Your task to perform on an android device: delete a single message in the gmail app Image 0: 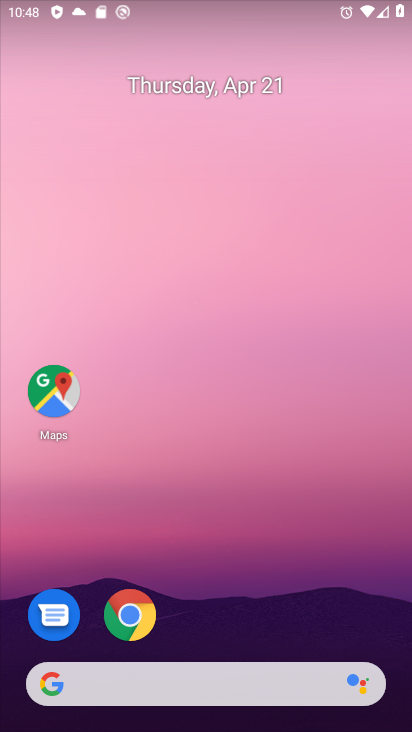
Step 0: drag from (213, 621) to (264, 186)
Your task to perform on an android device: delete a single message in the gmail app Image 1: 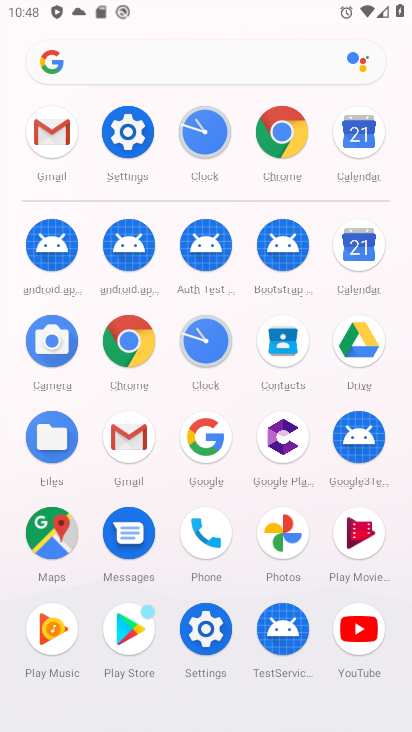
Step 1: click (122, 430)
Your task to perform on an android device: delete a single message in the gmail app Image 2: 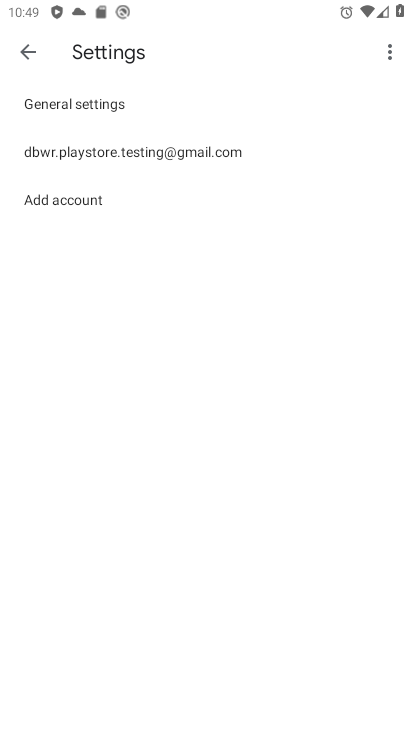
Step 2: press back button
Your task to perform on an android device: delete a single message in the gmail app Image 3: 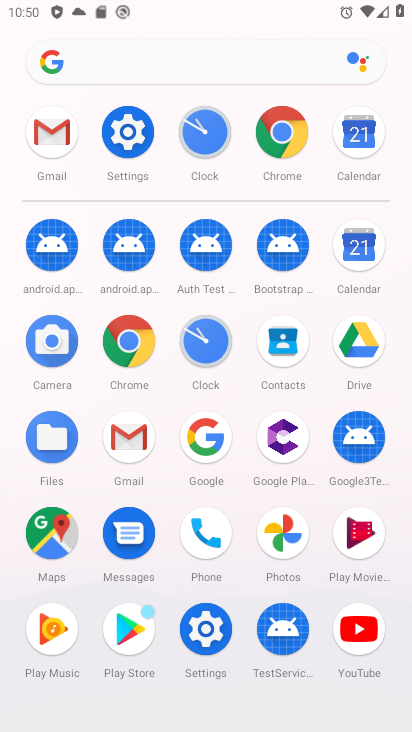
Step 3: click (129, 430)
Your task to perform on an android device: delete a single message in the gmail app Image 4: 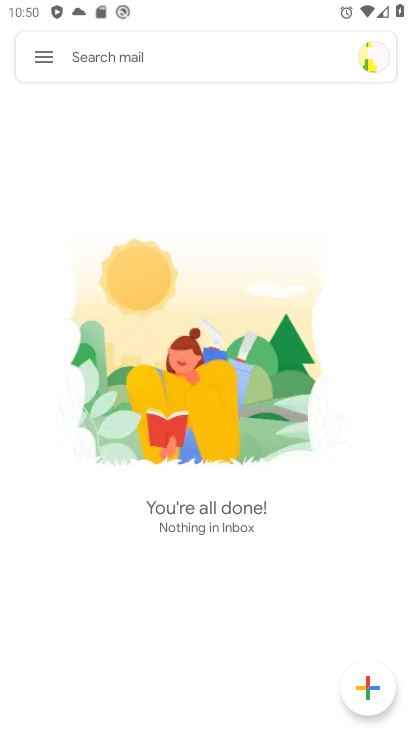
Step 4: task complete